Your task to perform on an android device: open sync settings in chrome Image 0: 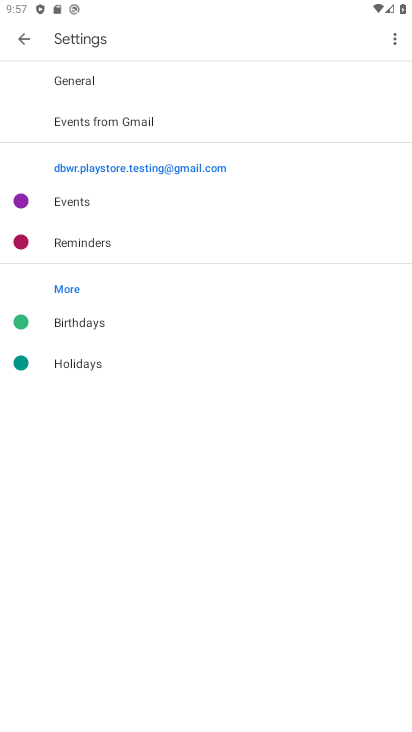
Step 0: press home button
Your task to perform on an android device: open sync settings in chrome Image 1: 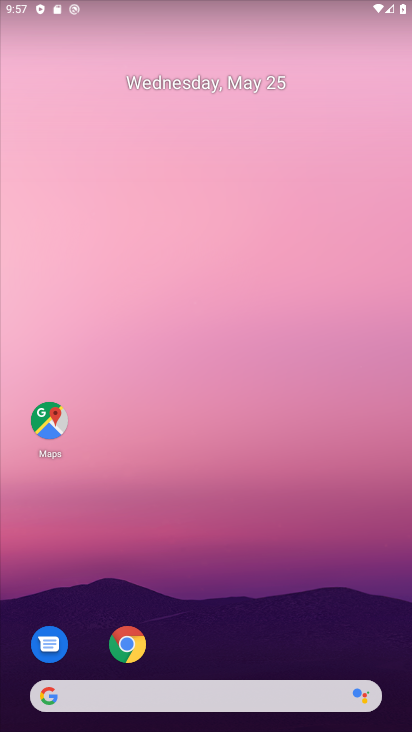
Step 1: click (142, 629)
Your task to perform on an android device: open sync settings in chrome Image 2: 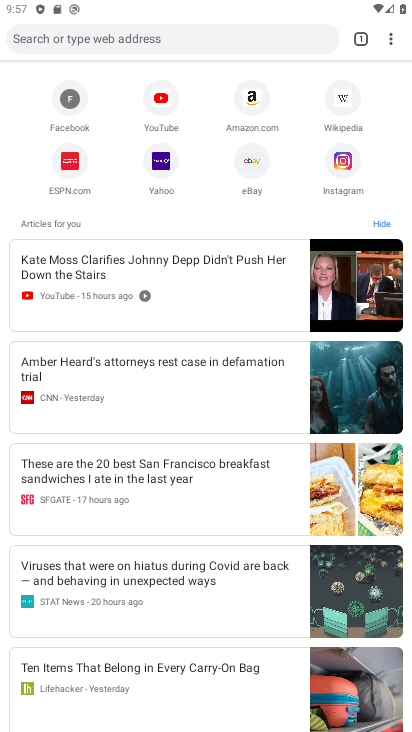
Step 2: click (385, 43)
Your task to perform on an android device: open sync settings in chrome Image 3: 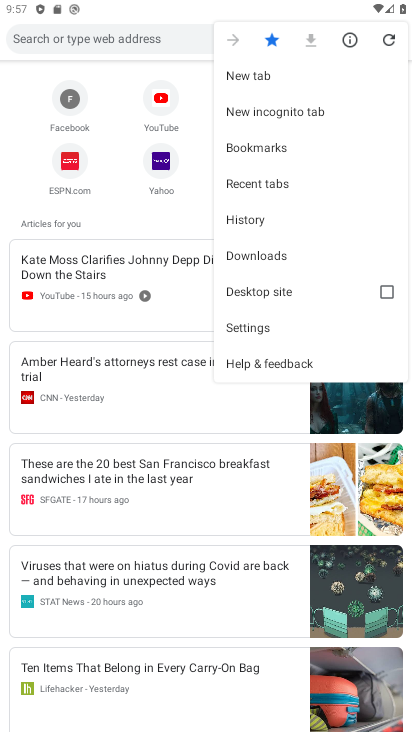
Step 3: click (274, 328)
Your task to perform on an android device: open sync settings in chrome Image 4: 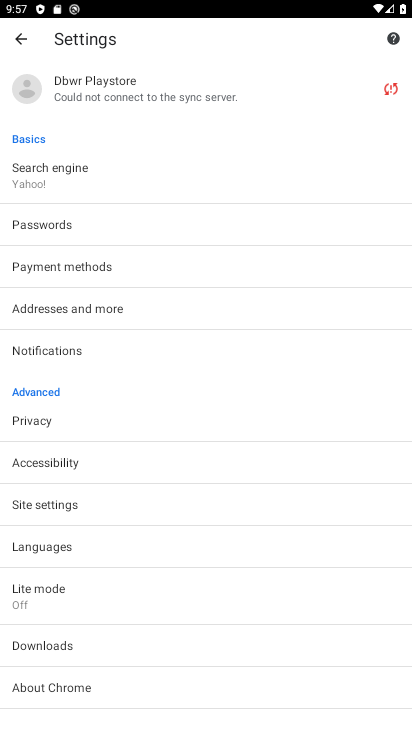
Step 4: click (134, 96)
Your task to perform on an android device: open sync settings in chrome Image 5: 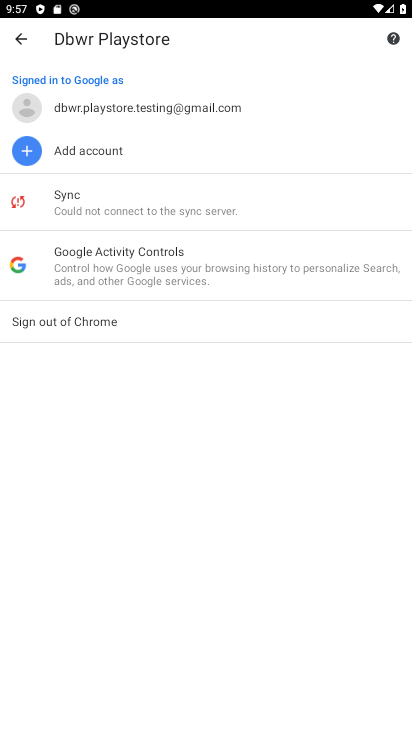
Step 5: click (78, 214)
Your task to perform on an android device: open sync settings in chrome Image 6: 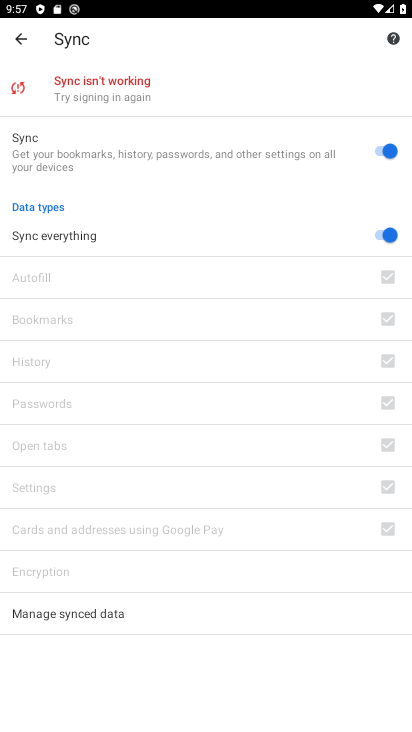
Step 6: task complete